Your task to perform on an android device: Open the calendar and show me this week's events Image 0: 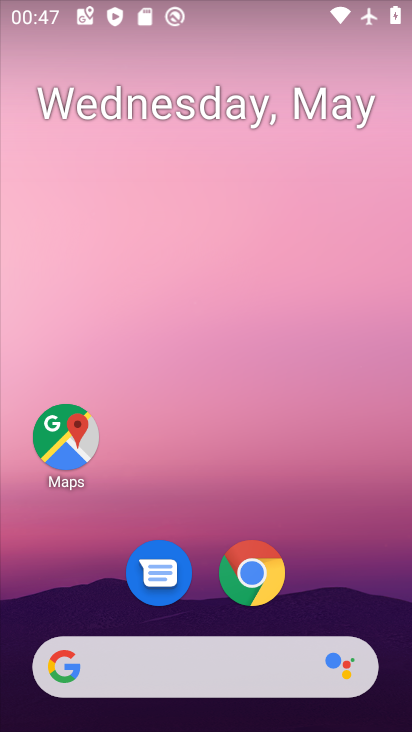
Step 0: click (337, 466)
Your task to perform on an android device: Open the calendar and show me this week's events Image 1: 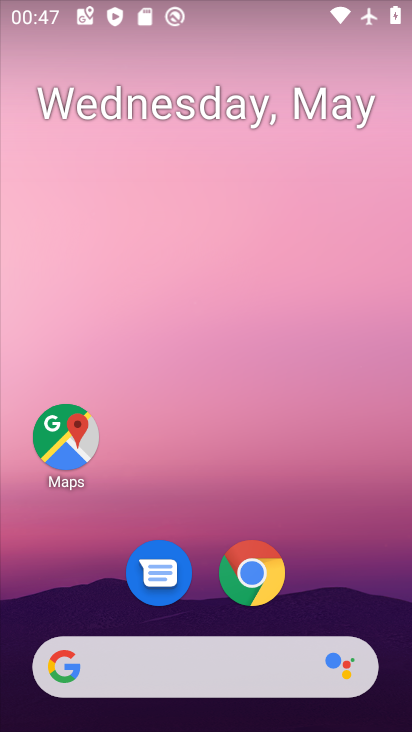
Step 1: click (317, 604)
Your task to perform on an android device: Open the calendar and show me this week's events Image 2: 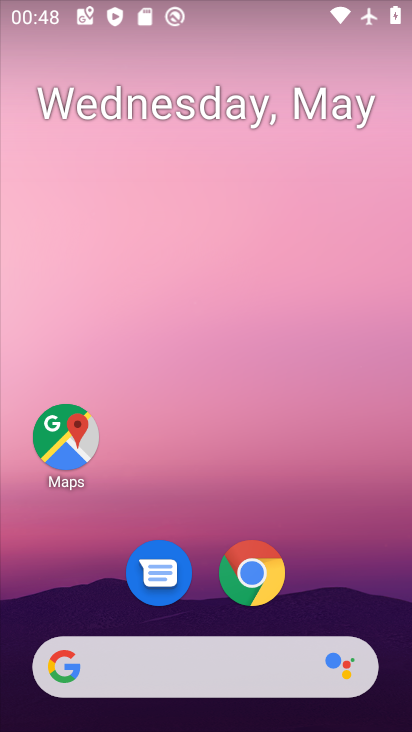
Step 2: drag from (346, 530) to (321, 198)
Your task to perform on an android device: Open the calendar and show me this week's events Image 3: 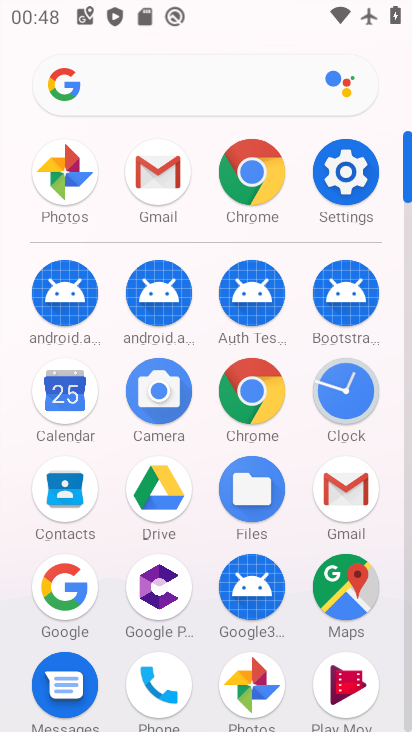
Step 3: click (71, 389)
Your task to perform on an android device: Open the calendar and show me this week's events Image 4: 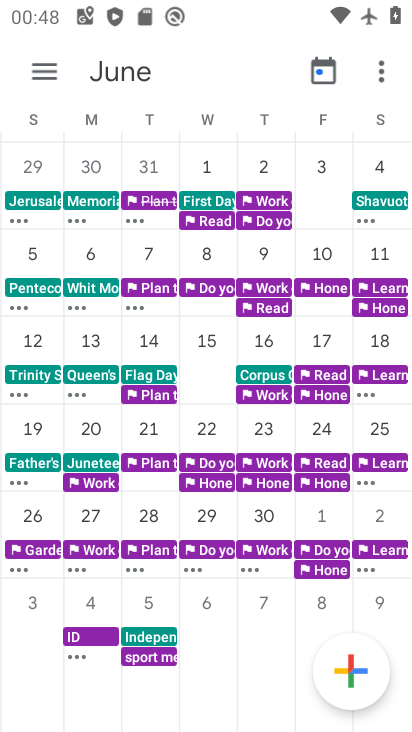
Step 4: click (42, 69)
Your task to perform on an android device: Open the calendar and show me this week's events Image 5: 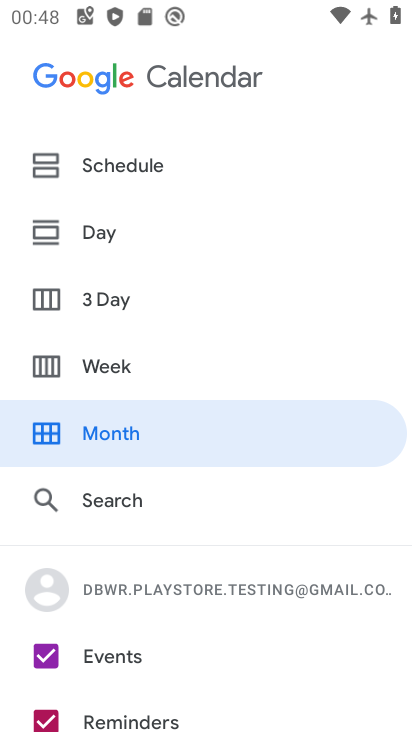
Step 5: click (124, 366)
Your task to perform on an android device: Open the calendar and show me this week's events Image 6: 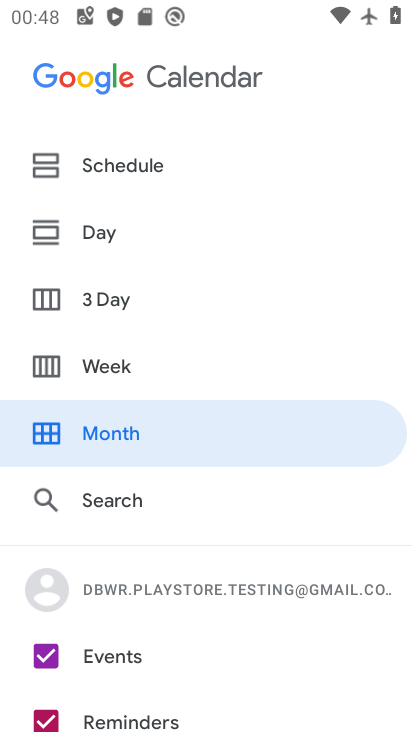
Step 6: click (150, 357)
Your task to perform on an android device: Open the calendar and show me this week's events Image 7: 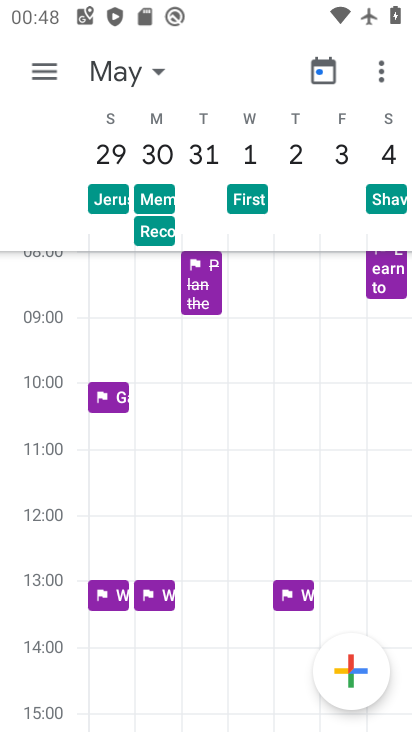
Step 7: task complete